Your task to perform on an android device: check data usage Image 0: 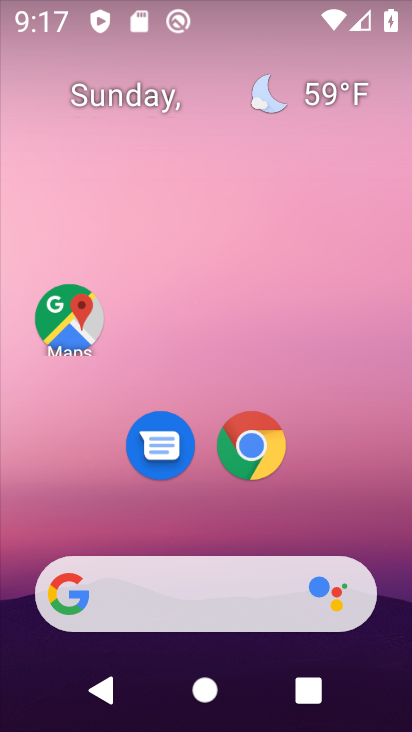
Step 0: drag from (98, 557) to (217, 81)
Your task to perform on an android device: check data usage Image 1: 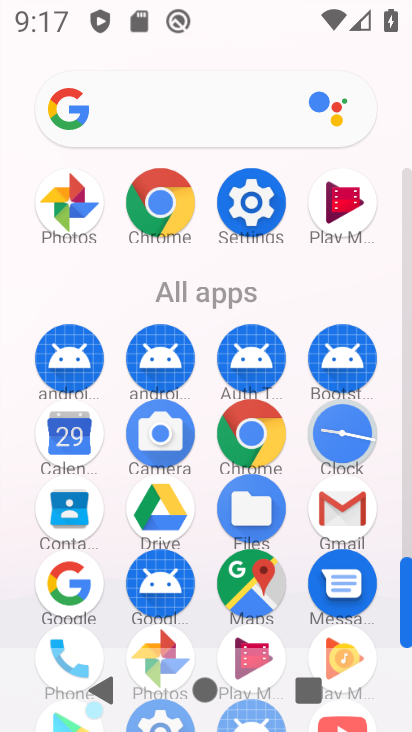
Step 1: drag from (147, 604) to (206, 321)
Your task to perform on an android device: check data usage Image 2: 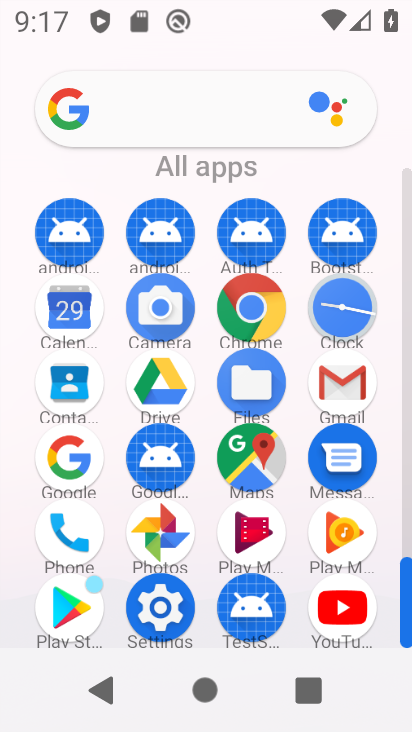
Step 2: click (165, 618)
Your task to perform on an android device: check data usage Image 3: 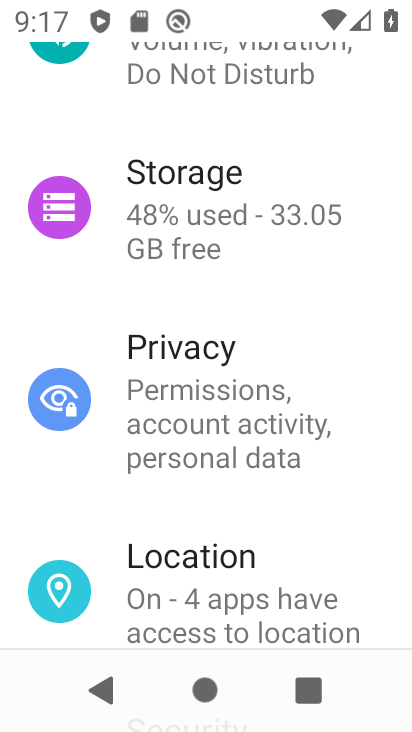
Step 3: drag from (262, 258) to (229, 653)
Your task to perform on an android device: check data usage Image 4: 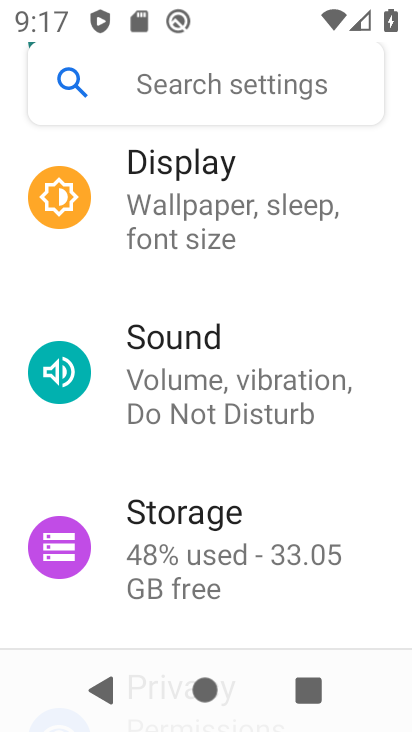
Step 4: drag from (297, 257) to (301, 676)
Your task to perform on an android device: check data usage Image 5: 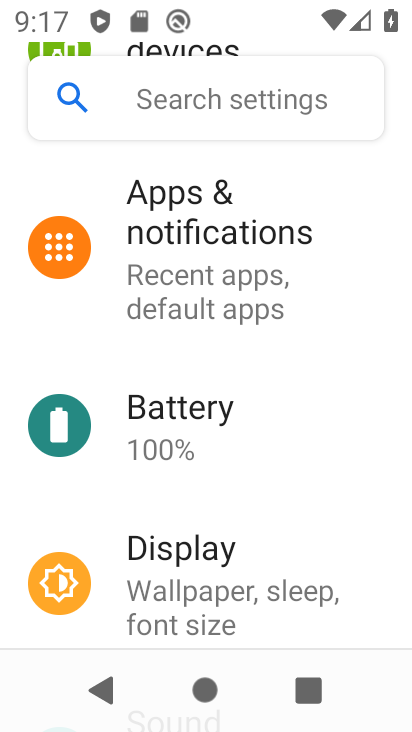
Step 5: drag from (315, 270) to (269, 686)
Your task to perform on an android device: check data usage Image 6: 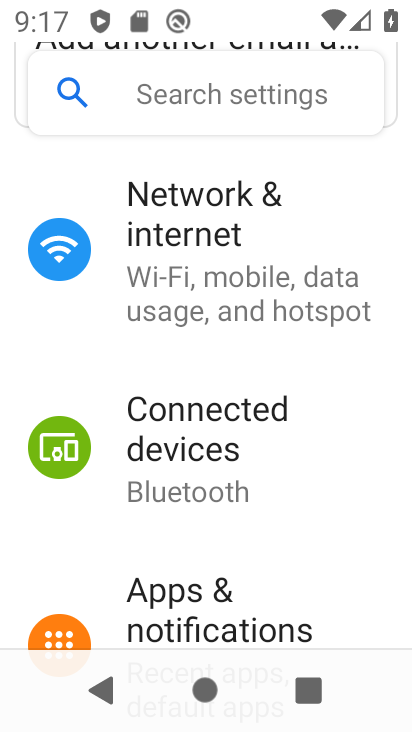
Step 6: drag from (266, 238) to (248, 513)
Your task to perform on an android device: check data usage Image 7: 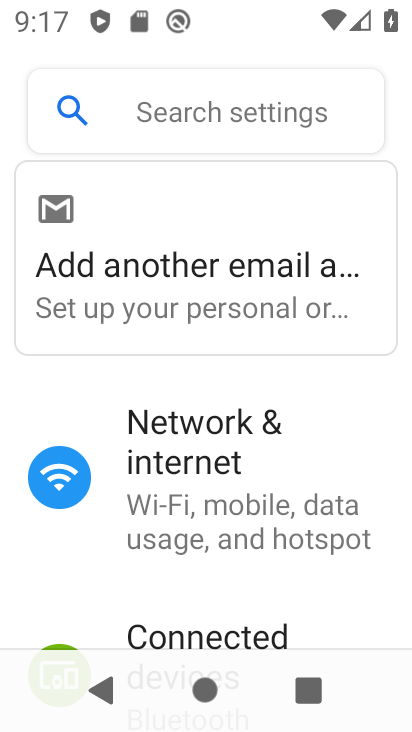
Step 7: click (253, 486)
Your task to perform on an android device: check data usage Image 8: 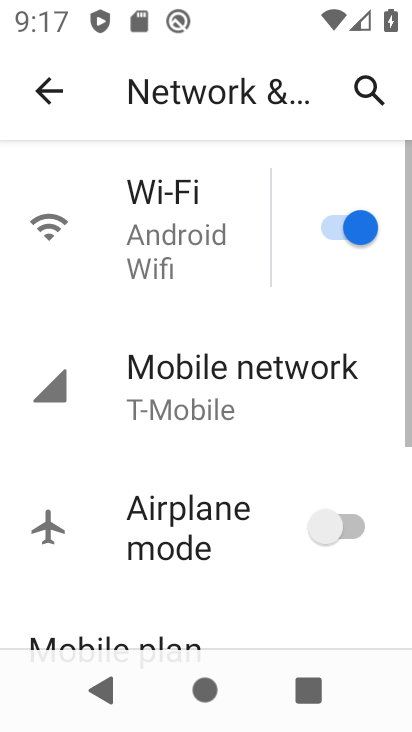
Step 8: drag from (216, 542) to (254, 458)
Your task to perform on an android device: check data usage Image 9: 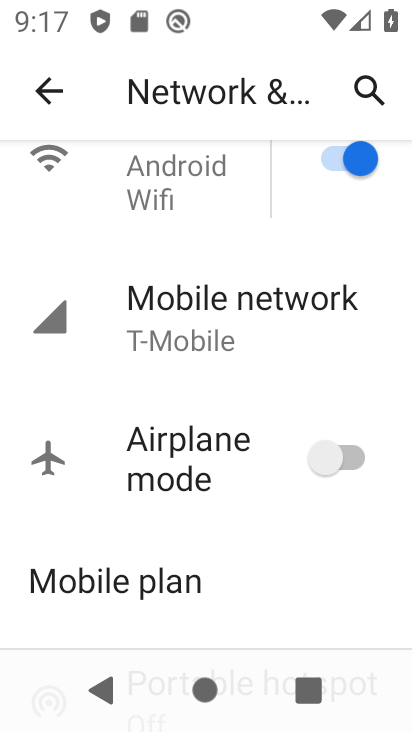
Step 9: click (244, 328)
Your task to perform on an android device: check data usage Image 10: 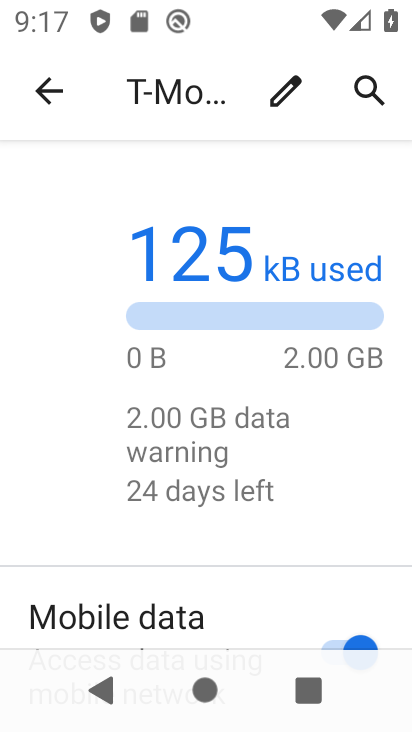
Step 10: drag from (263, 577) to (409, 188)
Your task to perform on an android device: check data usage Image 11: 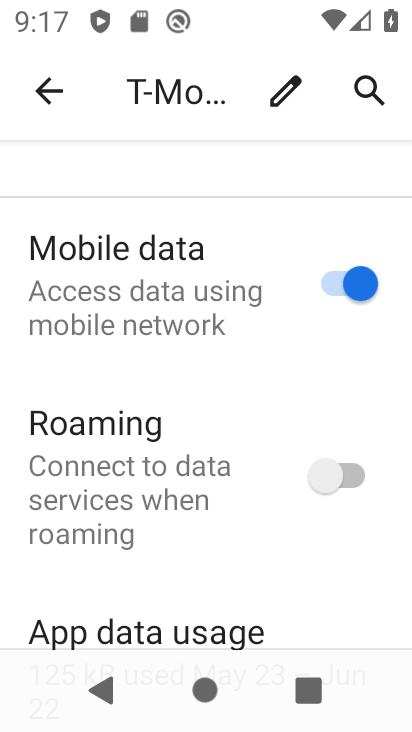
Step 11: click (189, 619)
Your task to perform on an android device: check data usage Image 12: 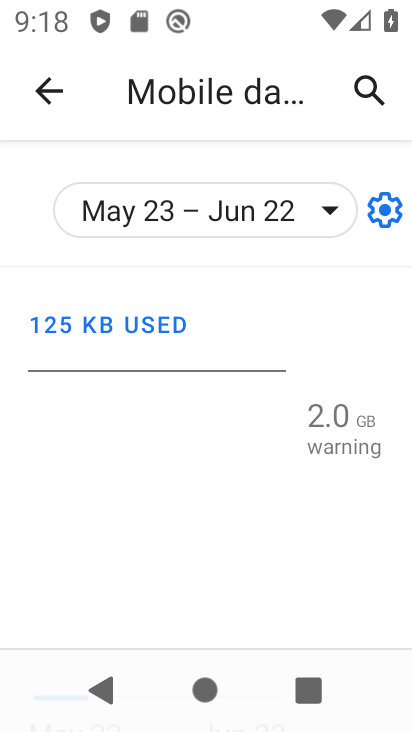
Step 12: task complete